Your task to perform on an android device: Do I have any events tomorrow? Image 0: 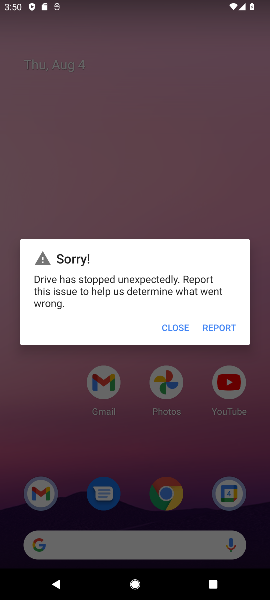
Step 0: click (177, 323)
Your task to perform on an android device: Do I have any events tomorrow? Image 1: 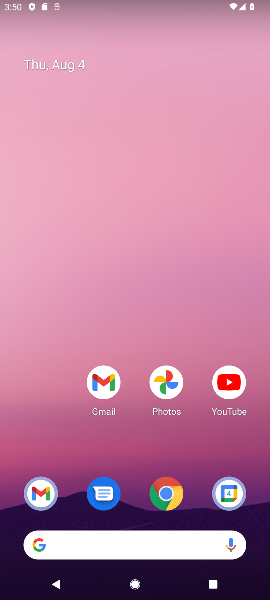
Step 1: drag from (141, 529) to (157, 203)
Your task to perform on an android device: Do I have any events tomorrow? Image 2: 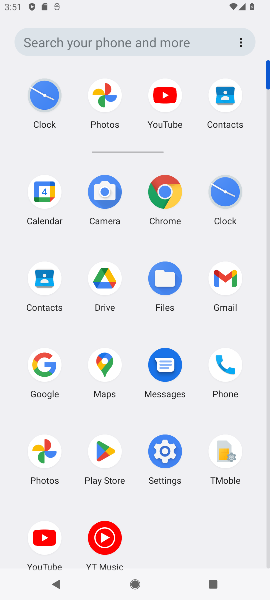
Step 2: click (46, 196)
Your task to perform on an android device: Do I have any events tomorrow? Image 3: 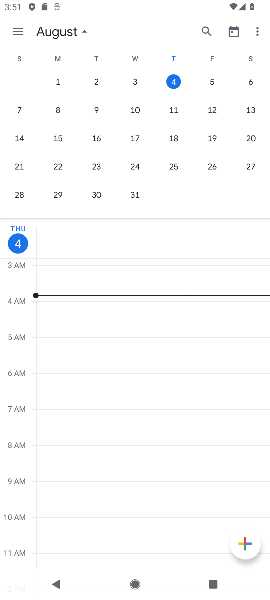
Step 3: drag from (213, 82) to (254, 82)
Your task to perform on an android device: Do I have any events tomorrow? Image 4: 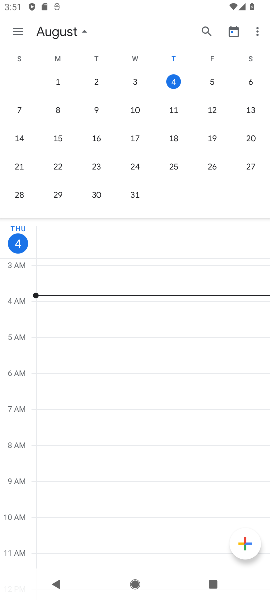
Step 4: click (216, 78)
Your task to perform on an android device: Do I have any events tomorrow? Image 5: 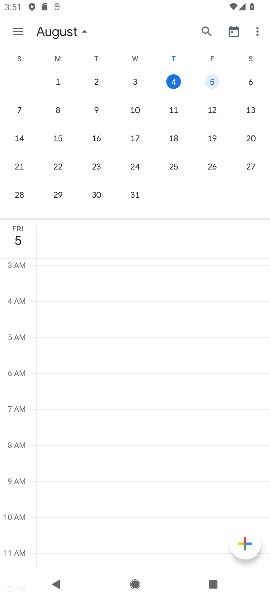
Step 5: task complete